Your task to perform on an android device: Open CNN.com Image 0: 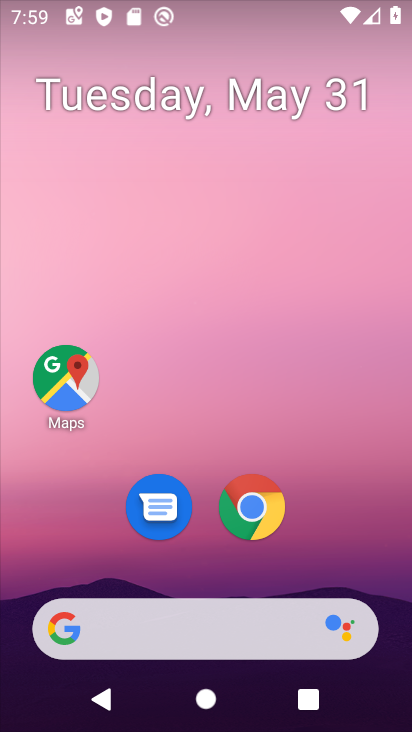
Step 0: click (253, 508)
Your task to perform on an android device: Open CNN.com Image 1: 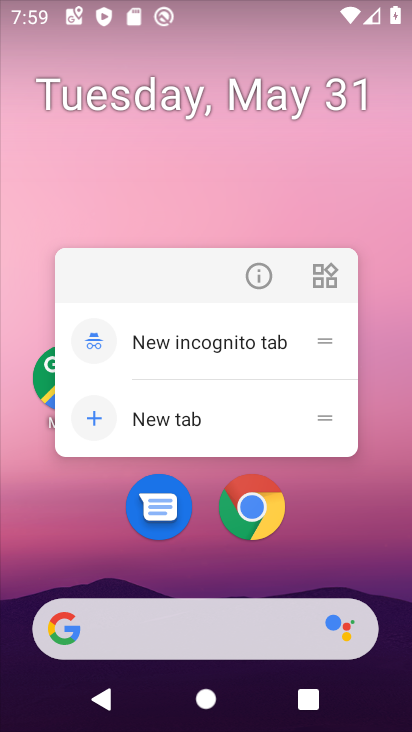
Step 1: click (315, 513)
Your task to perform on an android device: Open CNN.com Image 2: 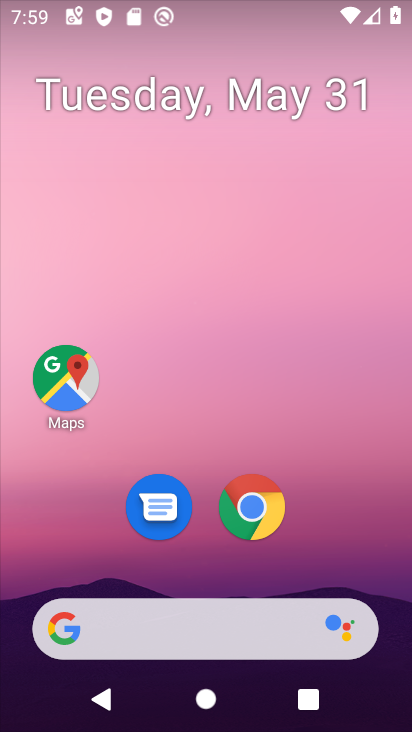
Step 2: drag from (315, 513) to (269, 220)
Your task to perform on an android device: Open CNN.com Image 3: 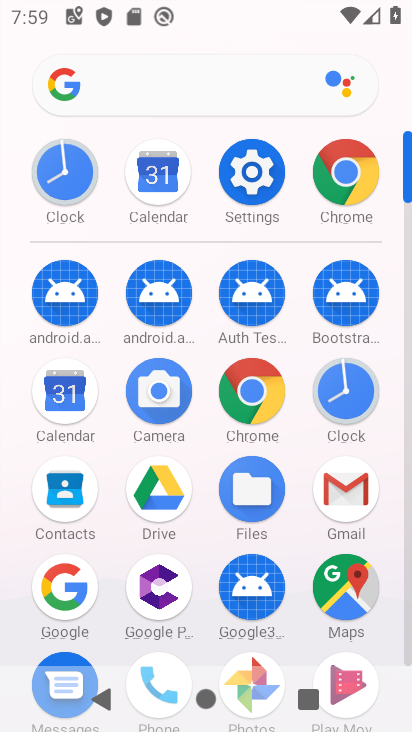
Step 3: click (254, 395)
Your task to perform on an android device: Open CNN.com Image 4: 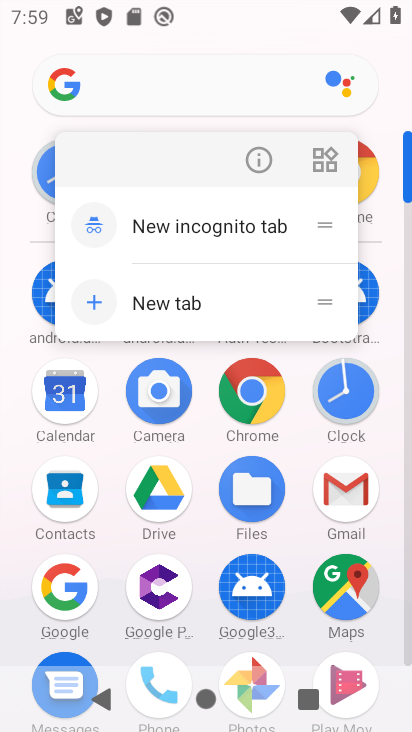
Step 4: click (248, 396)
Your task to perform on an android device: Open CNN.com Image 5: 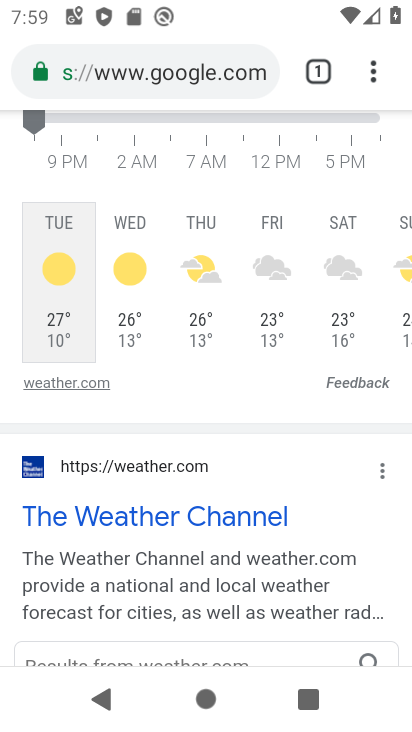
Step 5: click (248, 396)
Your task to perform on an android device: Open CNN.com Image 6: 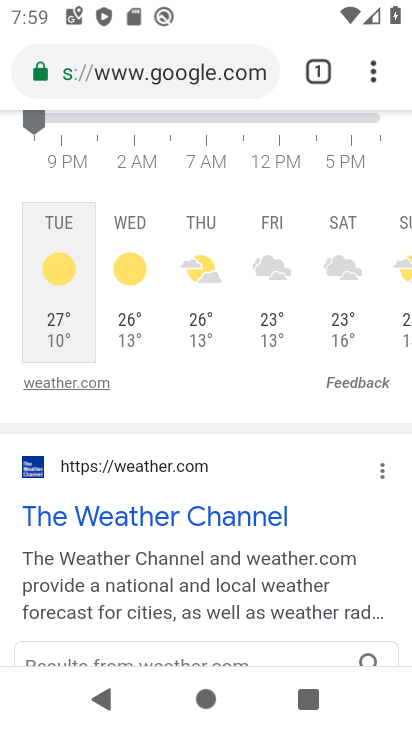
Step 6: click (233, 74)
Your task to perform on an android device: Open CNN.com Image 7: 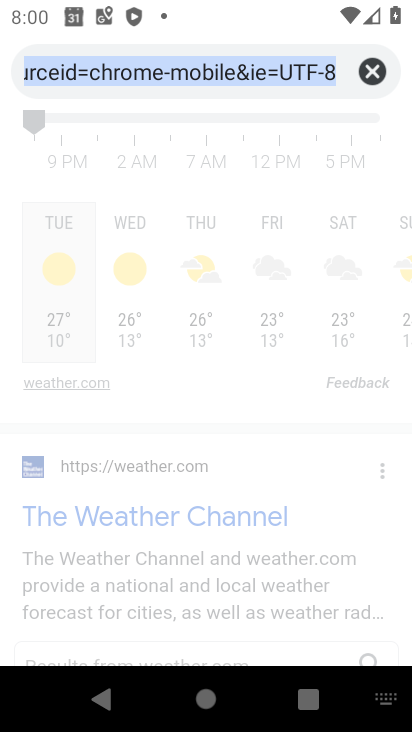
Step 7: type "cnn.com"
Your task to perform on an android device: Open CNN.com Image 8: 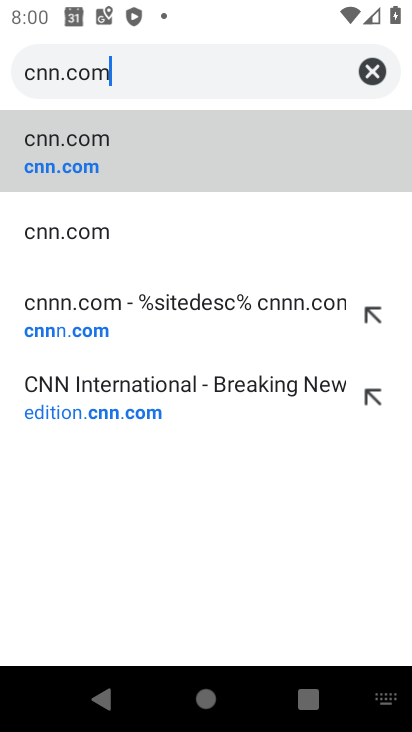
Step 8: click (86, 172)
Your task to perform on an android device: Open CNN.com Image 9: 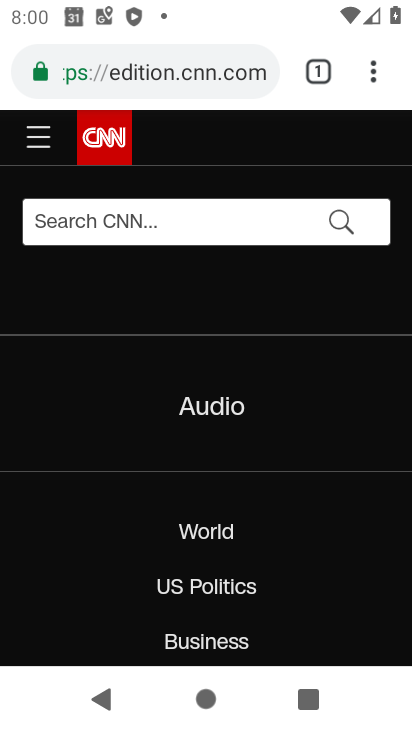
Step 9: task complete